Your task to perform on an android device: When is my next appointment? Image 0: 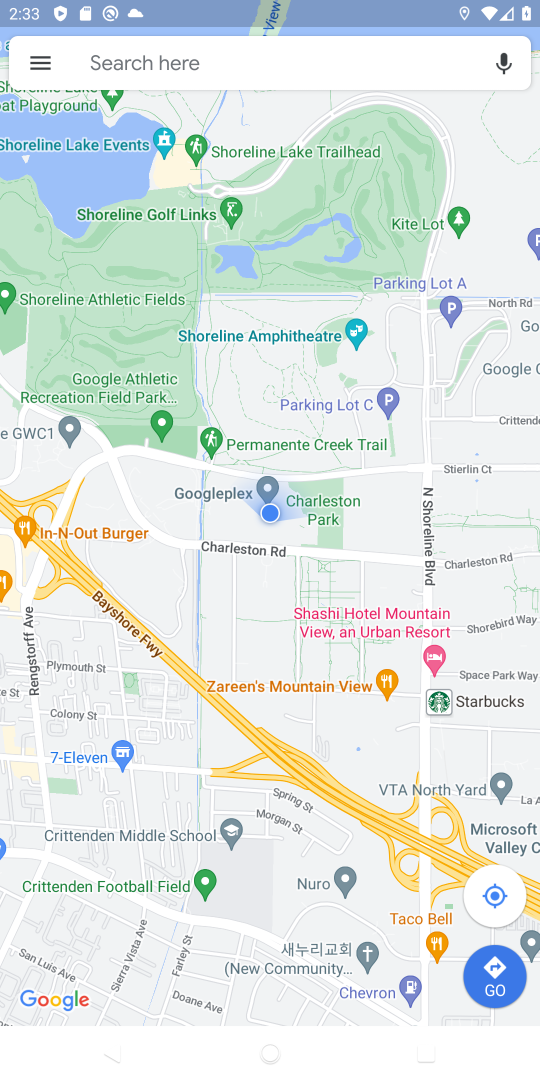
Step 0: press home button
Your task to perform on an android device: When is my next appointment? Image 1: 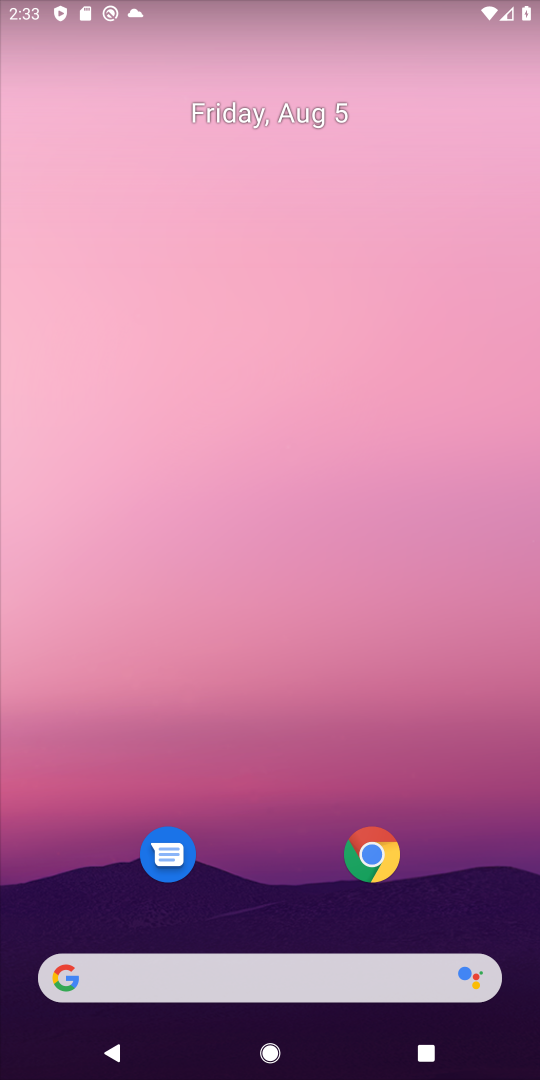
Step 1: drag from (53, 1025) to (393, 484)
Your task to perform on an android device: When is my next appointment? Image 2: 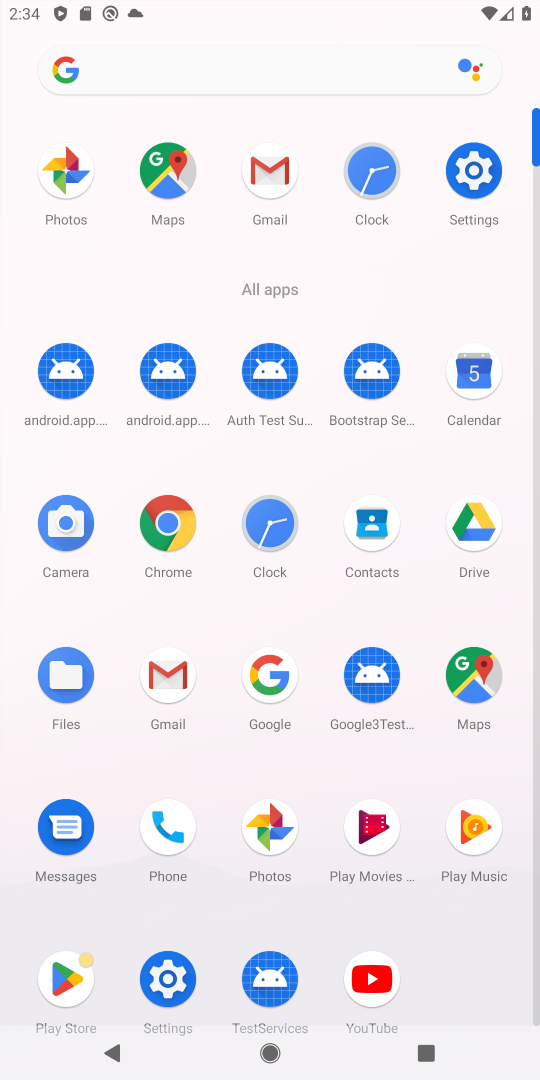
Step 2: click (485, 358)
Your task to perform on an android device: When is my next appointment? Image 3: 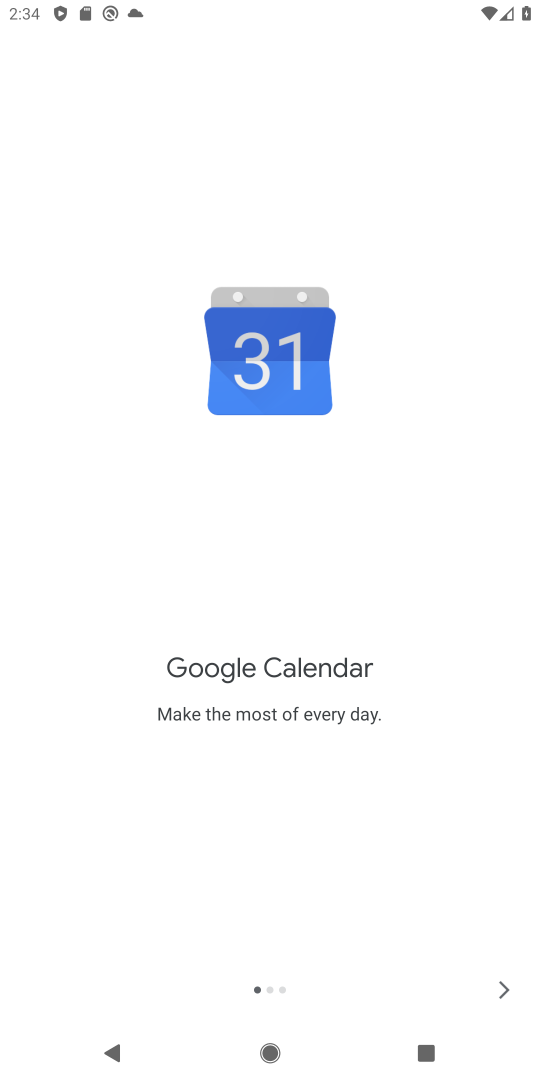
Step 3: click (503, 984)
Your task to perform on an android device: When is my next appointment? Image 4: 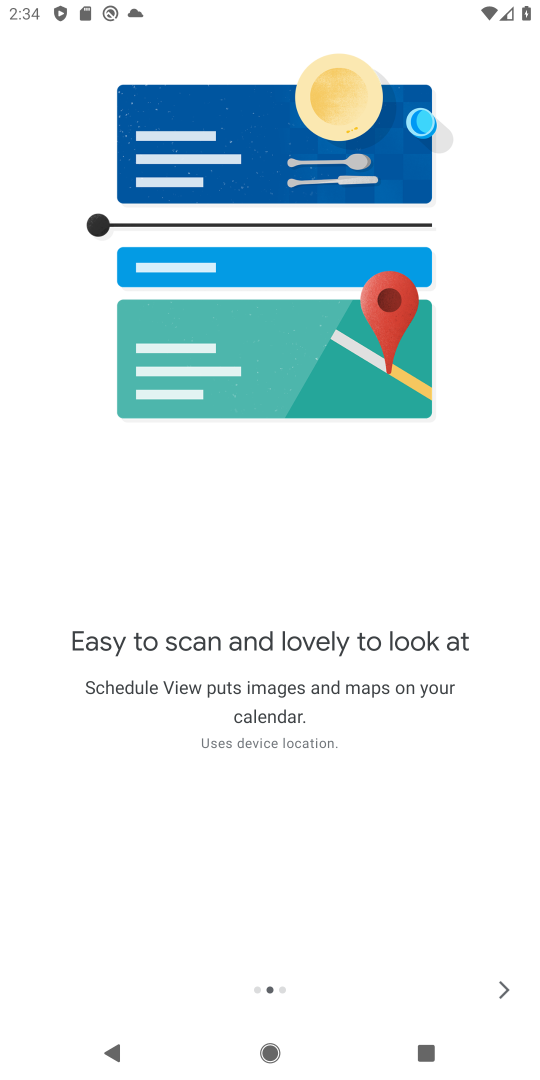
Step 4: click (503, 984)
Your task to perform on an android device: When is my next appointment? Image 5: 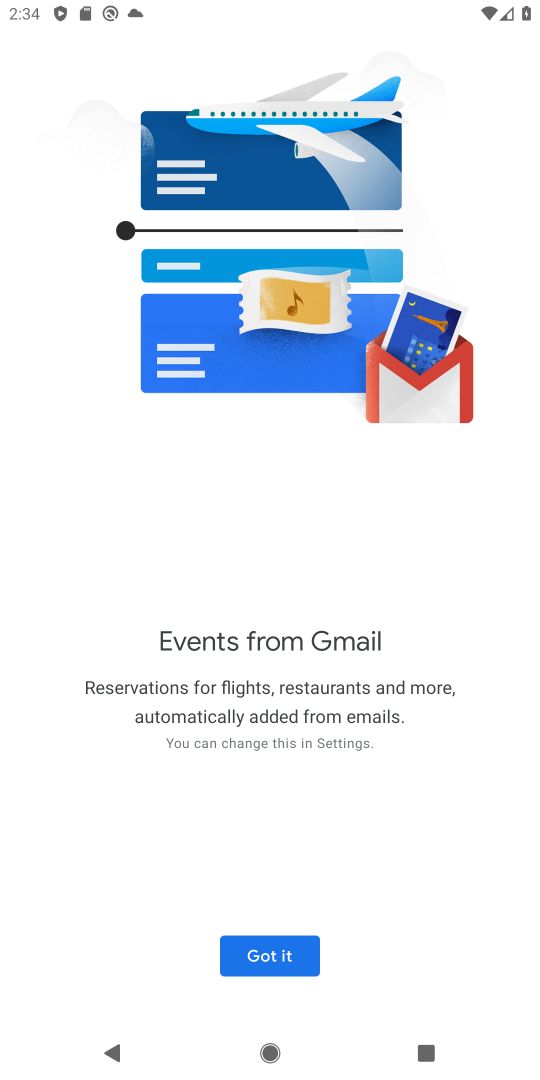
Step 5: click (258, 949)
Your task to perform on an android device: When is my next appointment? Image 6: 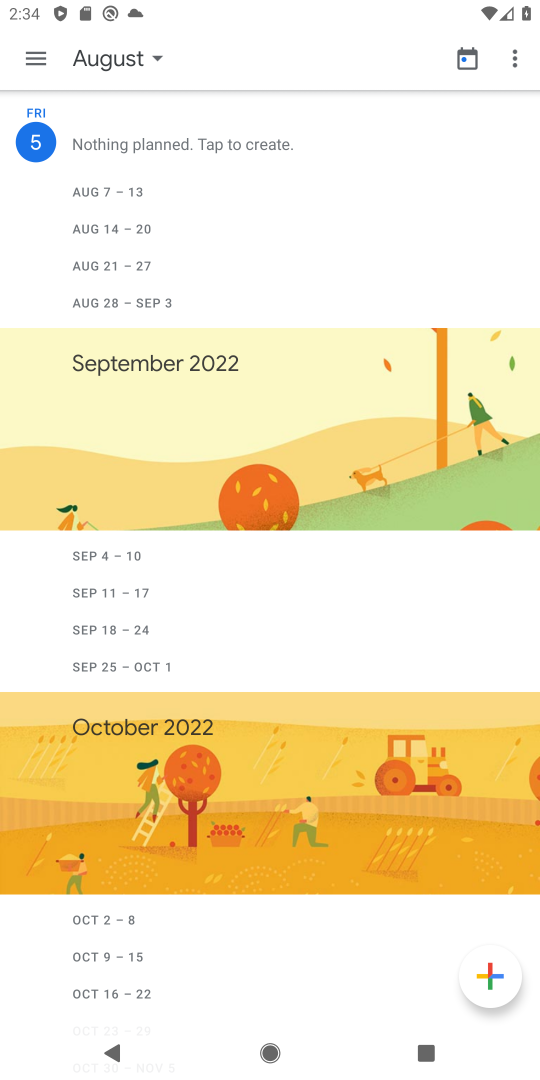
Step 6: click (152, 56)
Your task to perform on an android device: When is my next appointment? Image 7: 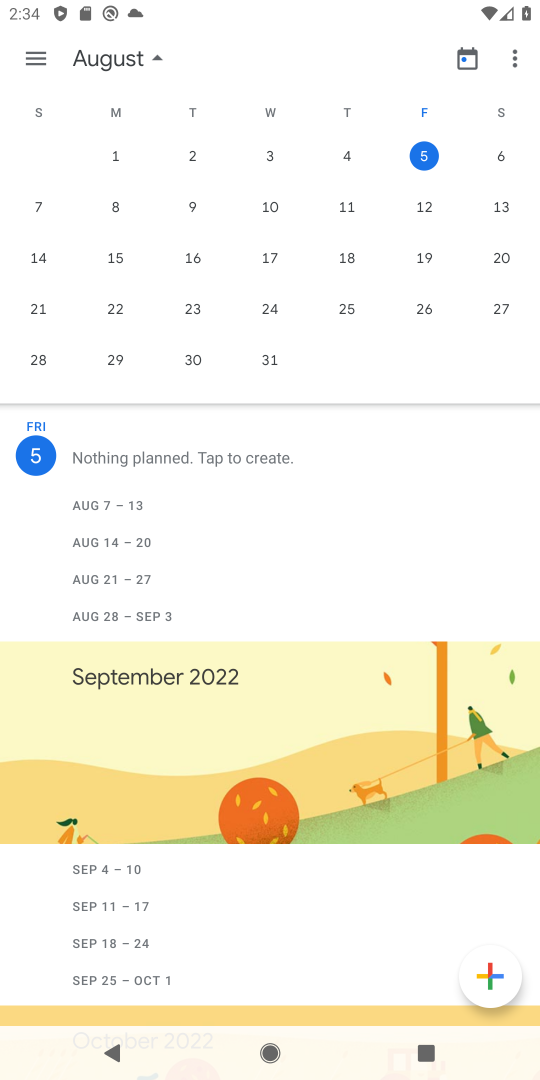
Step 7: task complete